Your task to perform on an android device: Open wifi settings Image 0: 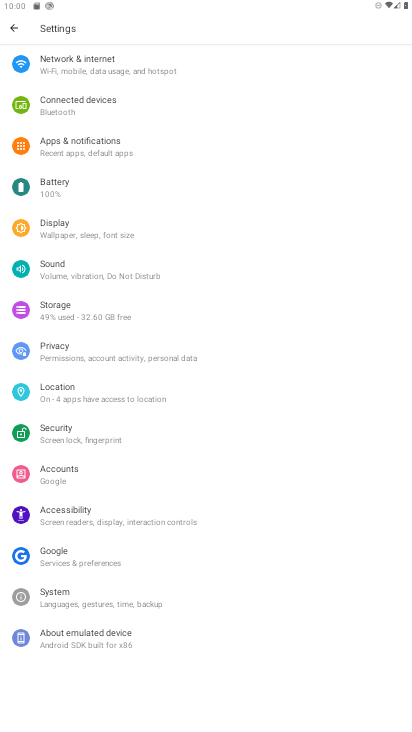
Step 0: click (90, 76)
Your task to perform on an android device: Open wifi settings Image 1: 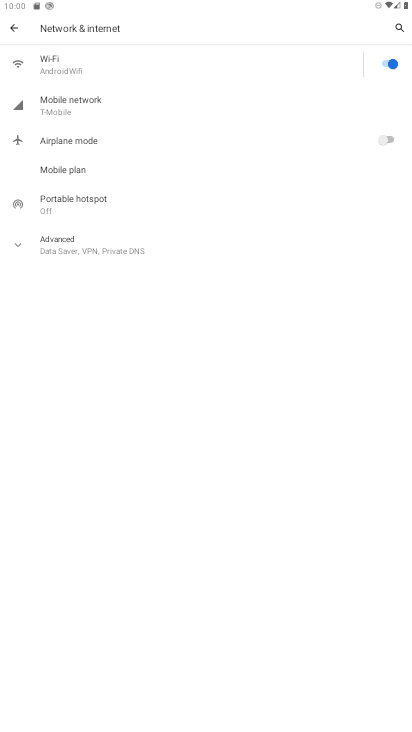
Step 1: click (112, 57)
Your task to perform on an android device: Open wifi settings Image 2: 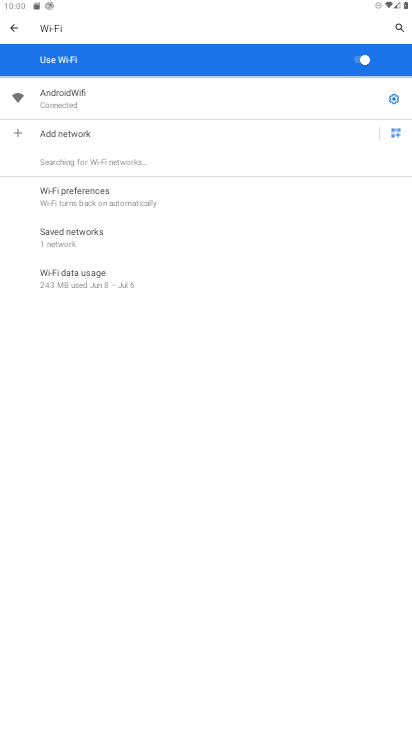
Step 2: task complete